Your task to perform on an android device: Show me productivity apps on the Play Store Image 0: 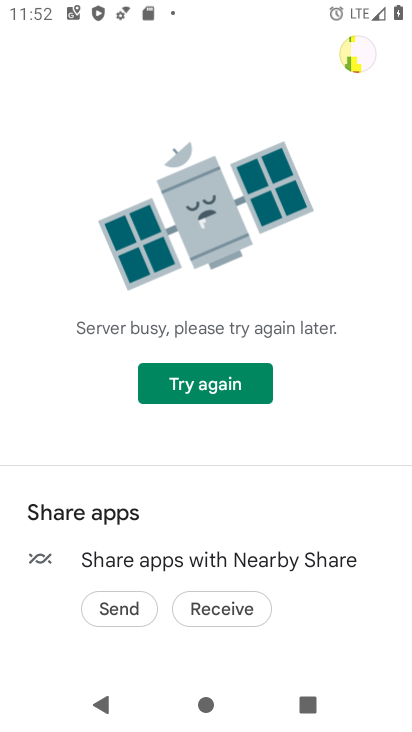
Step 0: press home button
Your task to perform on an android device: Show me productivity apps on the Play Store Image 1: 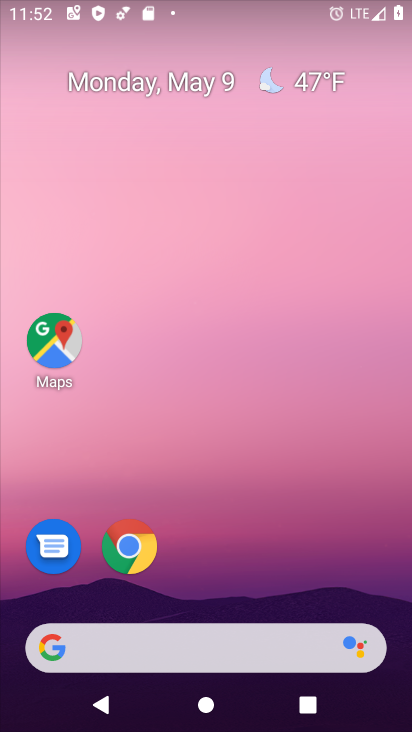
Step 1: drag from (331, 536) to (313, 2)
Your task to perform on an android device: Show me productivity apps on the Play Store Image 2: 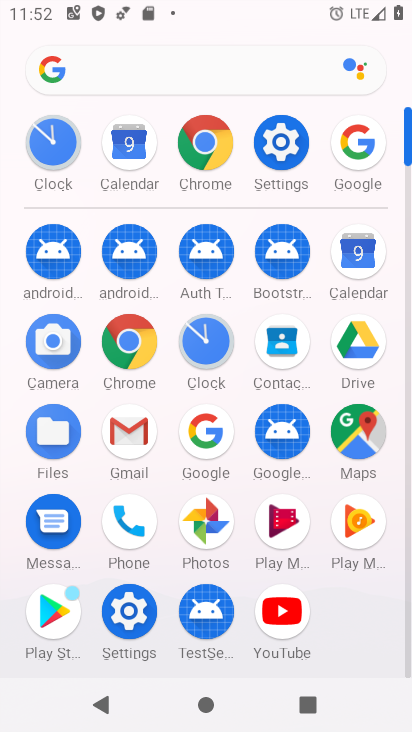
Step 2: click (57, 615)
Your task to perform on an android device: Show me productivity apps on the Play Store Image 3: 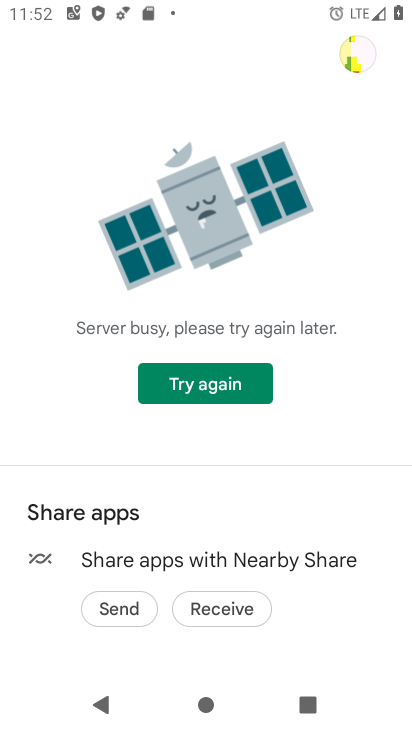
Step 3: task complete